Your task to perform on an android device: Open maps Image 0: 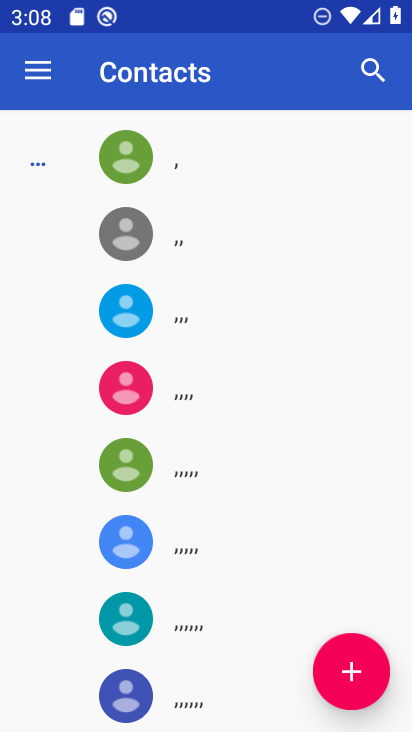
Step 0: press home button
Your task to perform on an android device: Open maps Image 1: 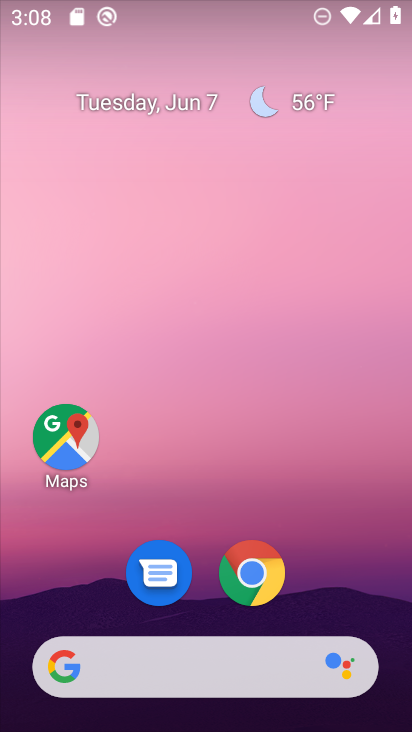
Step 1: click (69, 418)
Your task to perform on an android device: Open maps Image 2: 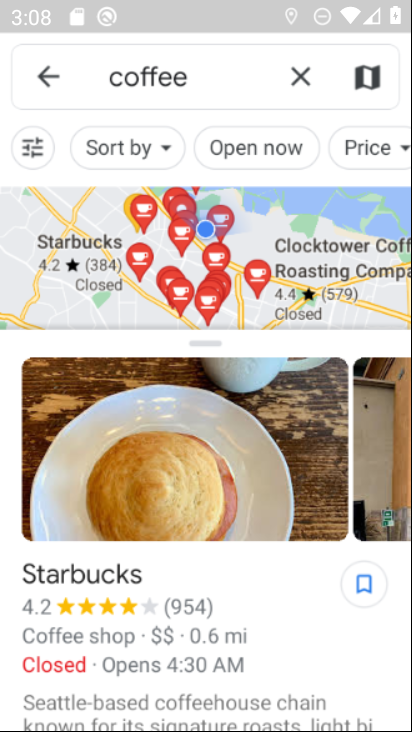
Step 2: task complete